Your task to perform on an android device: Open calendar and show me the second week of next month Image 0: 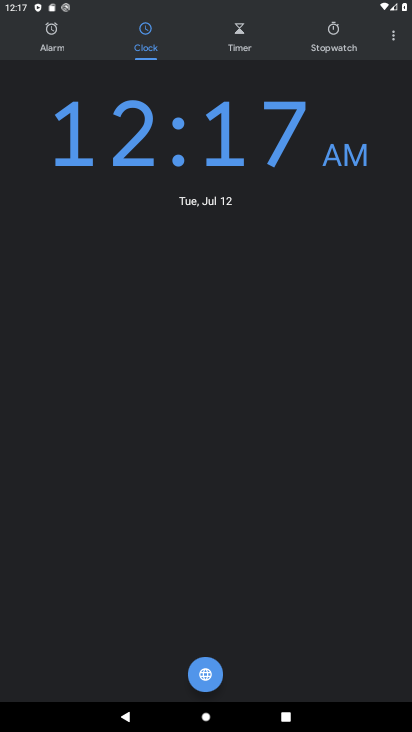
Step 0: press home button
Your task to perform on an android device: Open calendar and show me the second week of next month Image 1: 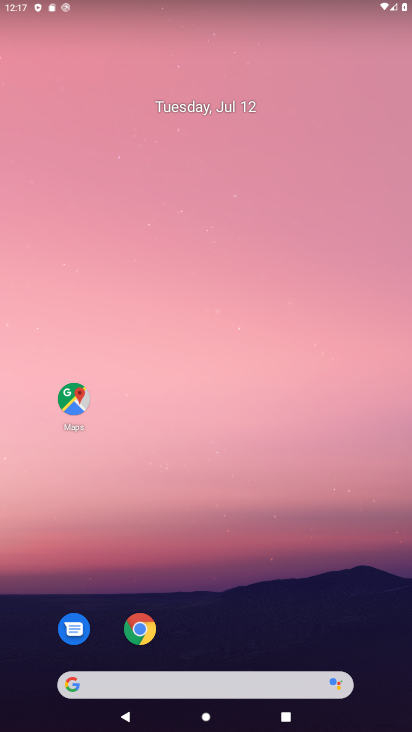
Step 1: drag from (203, 680) to (188, 100)
Your task to perform on an android device: Open calendar and show me the second week of next month Image 2: 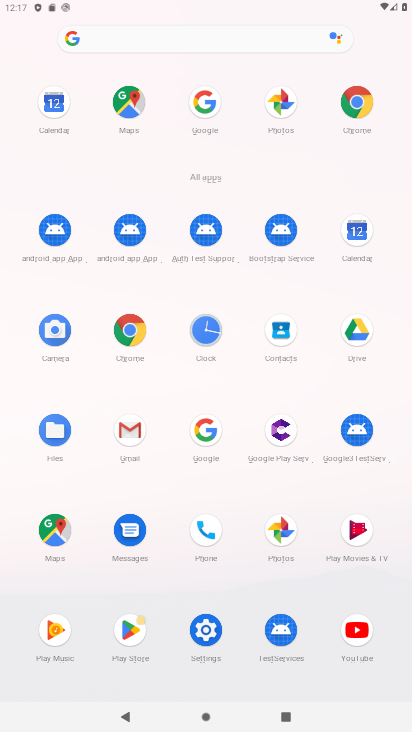
Step 2: click (367, 235)
Your task to perform on an android device: Open calendar and show me the second week of next month Image 3: 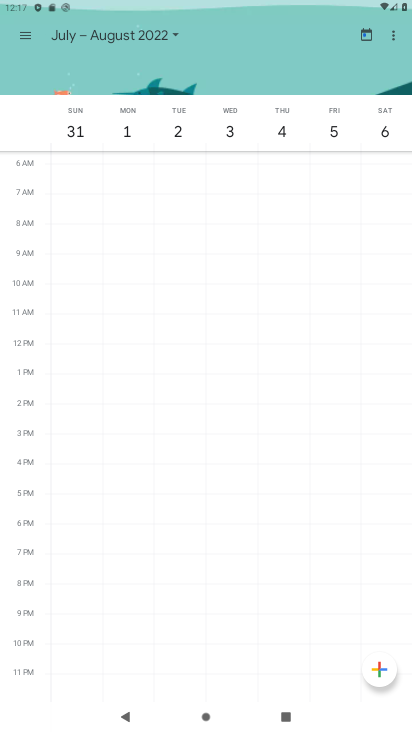
Step 3: click (179, 36)
Your task to perform on an android device: Open calendar and show me the second week of next month Image 4: 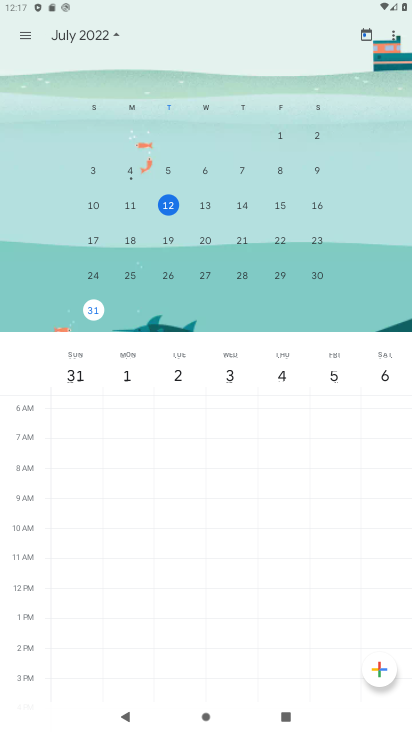
Step 4: drag from (339, 203) to (32, 243)
Your task to perform on an android device: Open calendar and show me the second week of next month Image 5: 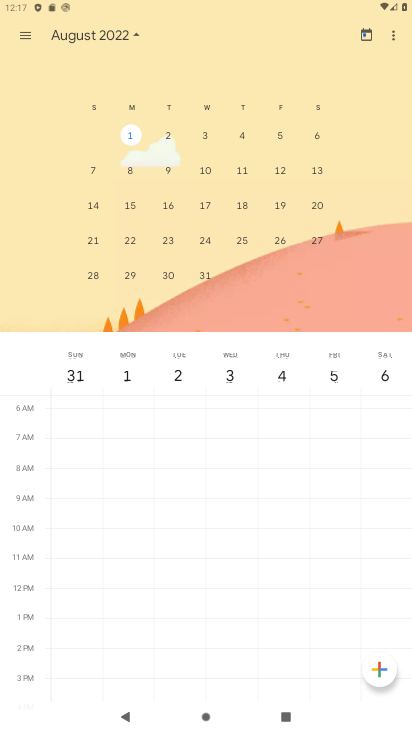
Step 5: click (209, 170)
Your task to perform on an android device: Open calendar and show me the second week of next month Image 6: 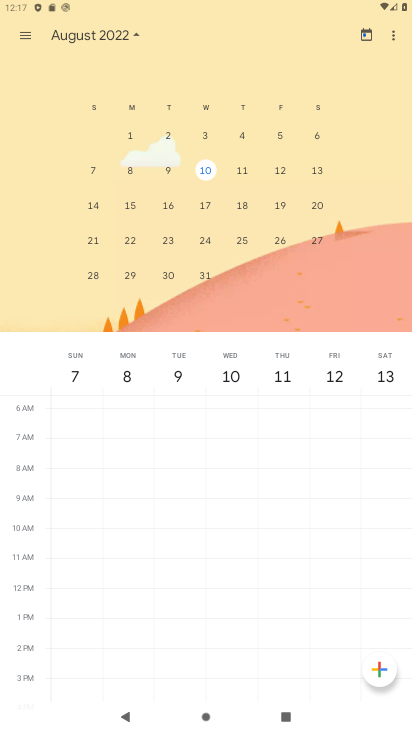
Step 6: task complete